Your task to perform on an android device: What's the weather going to be tomorrow? Image 0: 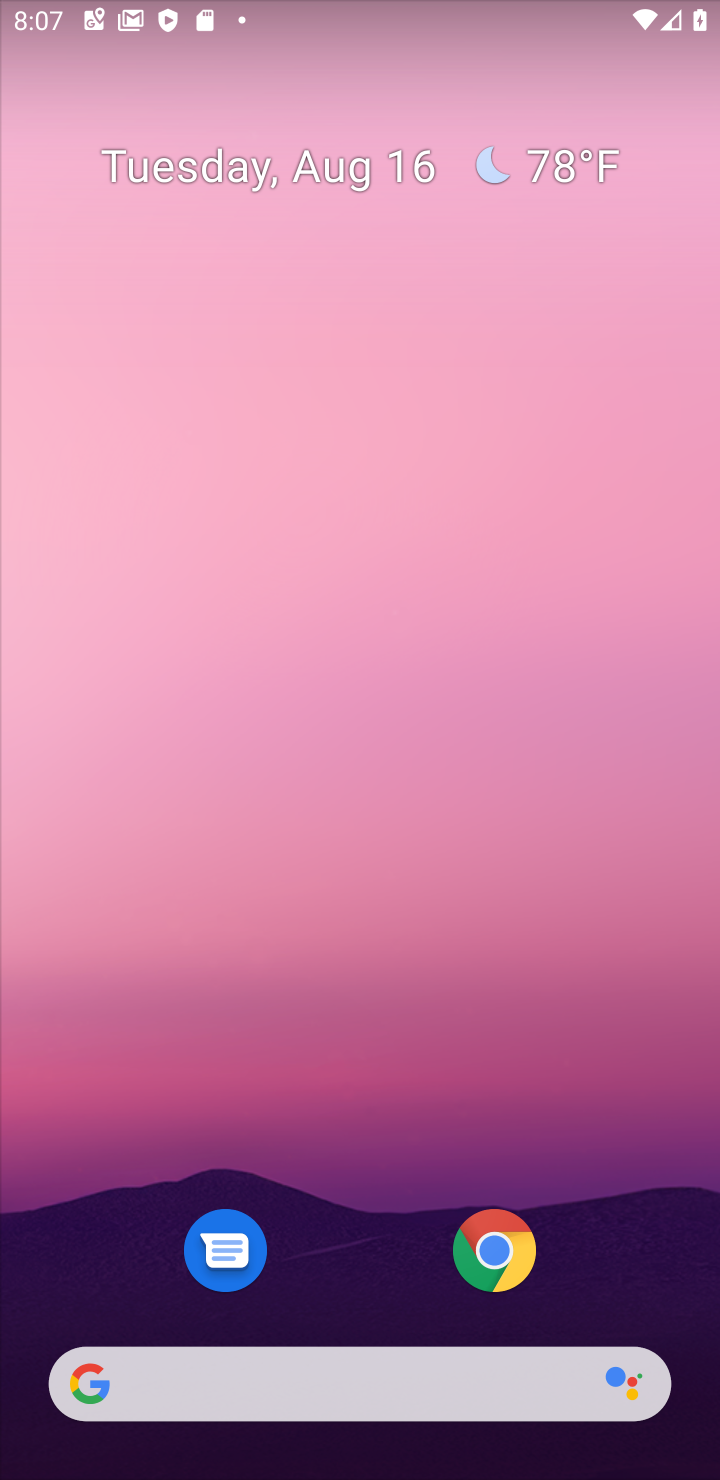
Step 0: click (514, 1249)
Your task to perform on an android device: What's the weather going to be tomorrow? Image 1: 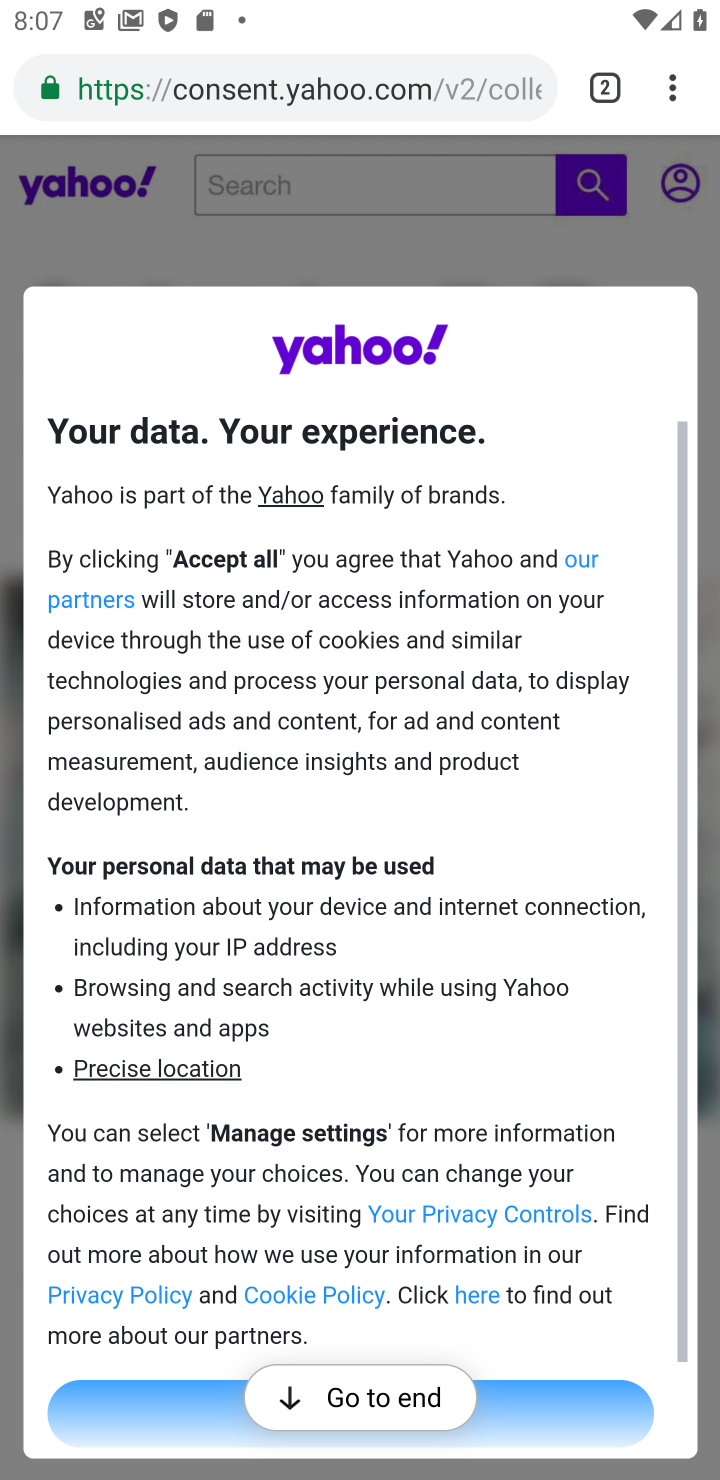
Step 1: press home button
Your task to perform on an android device: What's the weather going to be tomorrow? Image 2: 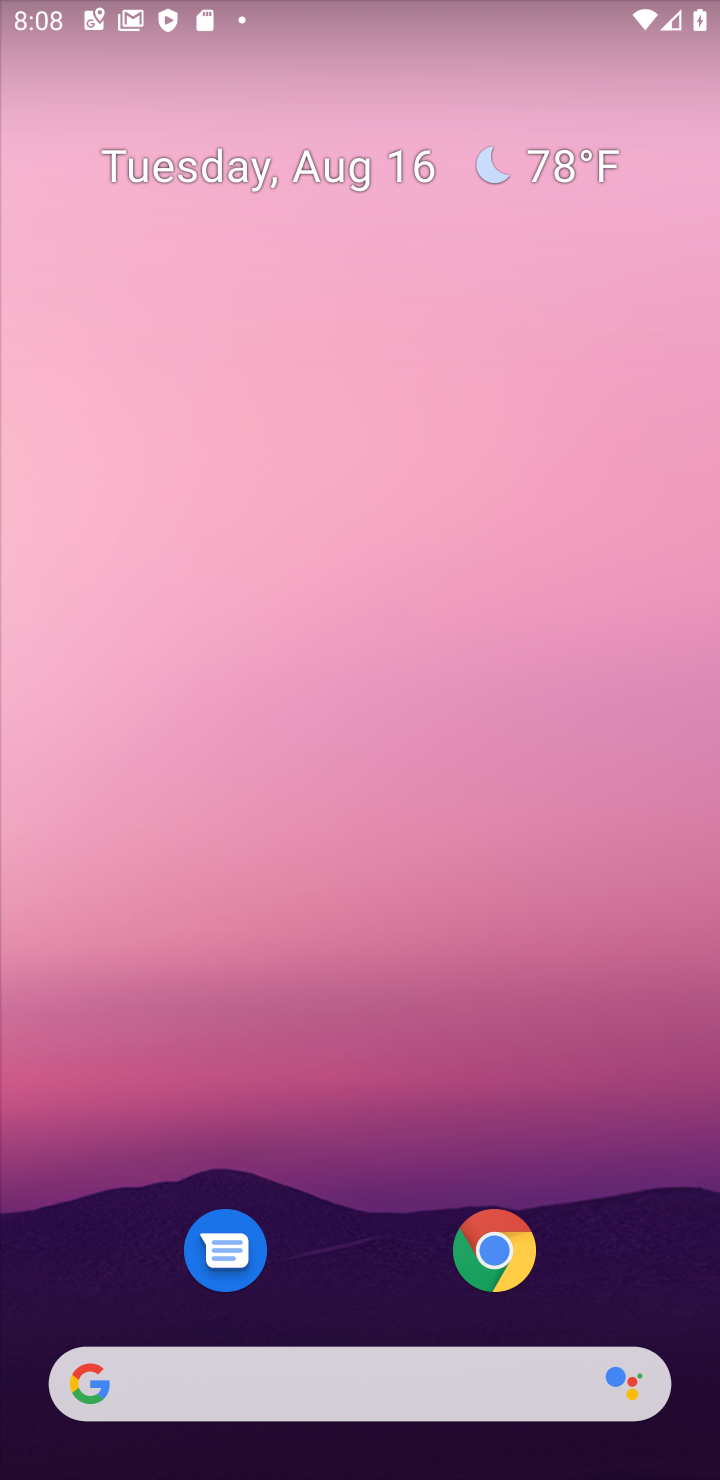
Step 2: click (592, 161)
Your task to perform on an android device: What's the weather going to be tomorrow? Image 3: 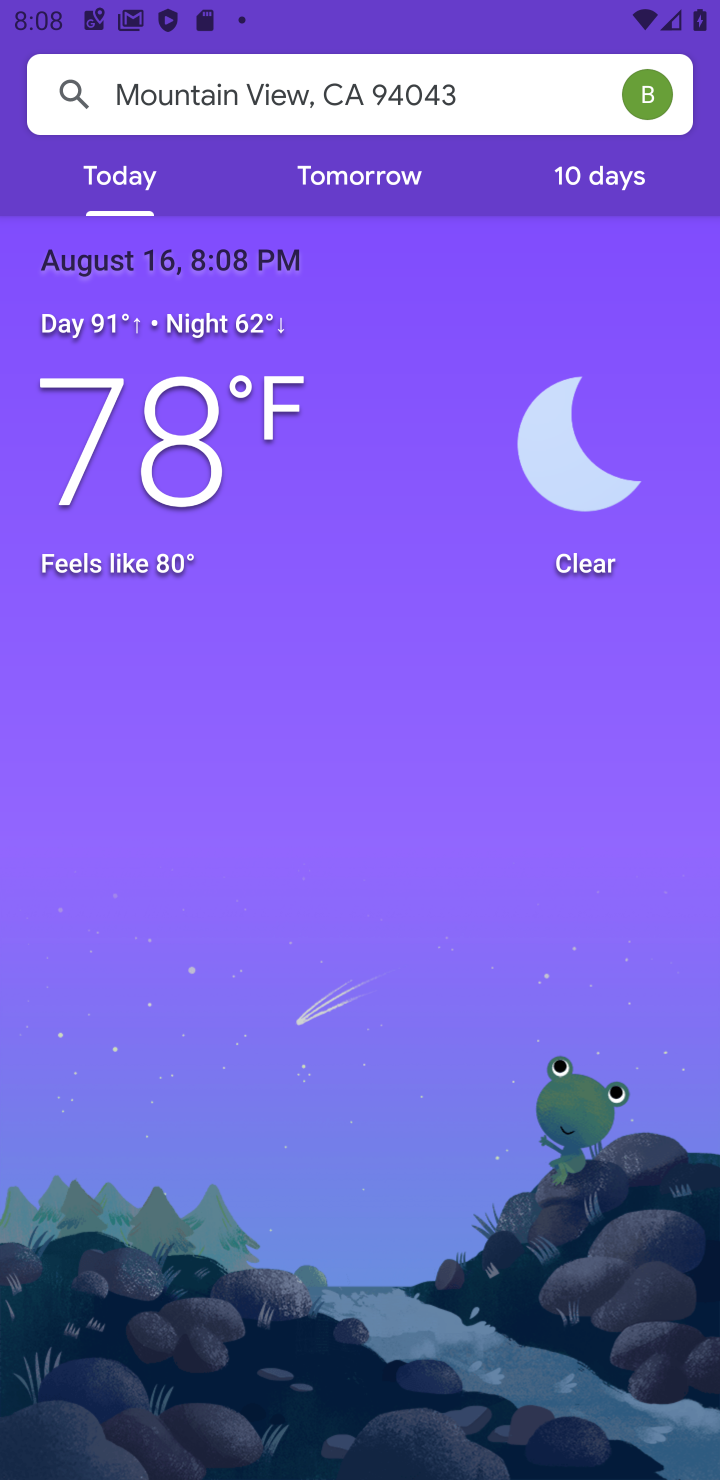
Step 3: click (362, 193)
Your task to perform on an android device: What's the weather going to be tomorrow? Image 4: 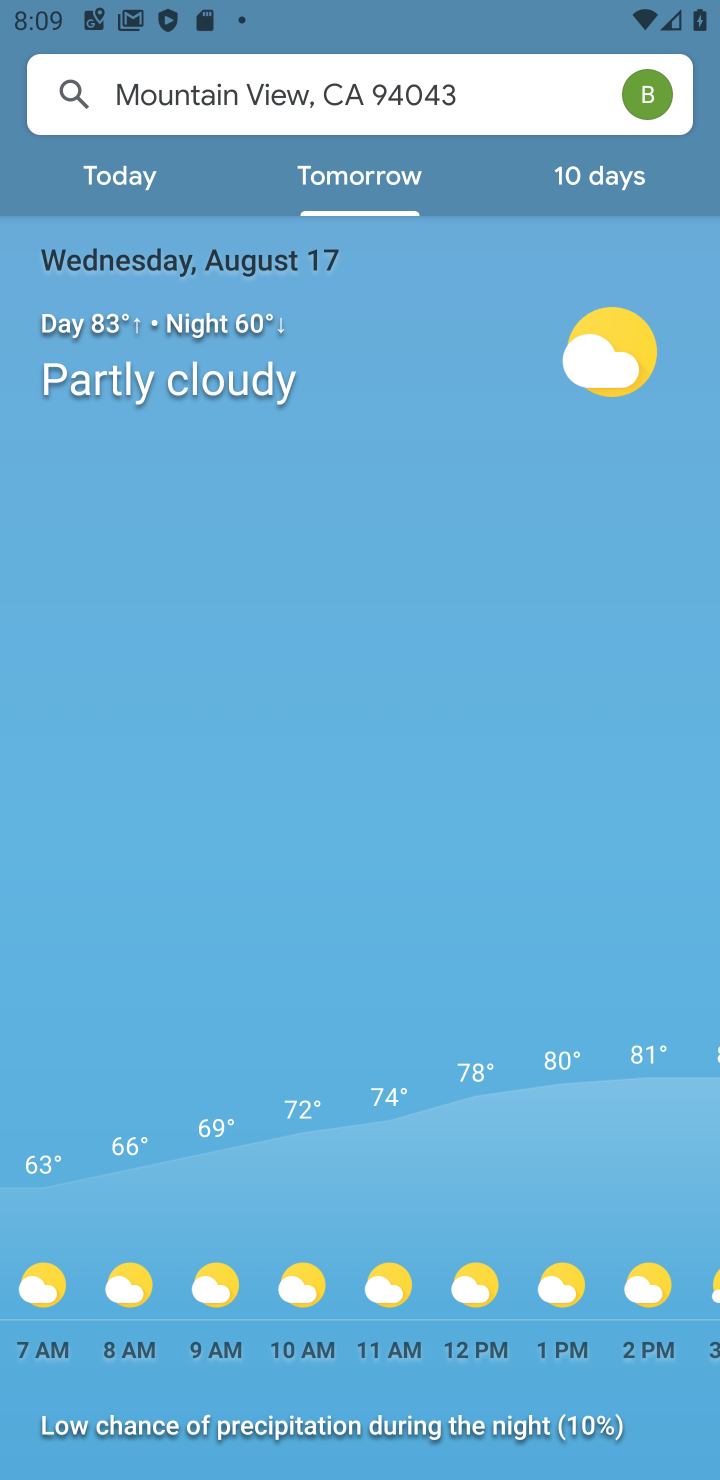
Step 4: task complete